Your task to perform on an android device: Open sound settings Image 0: 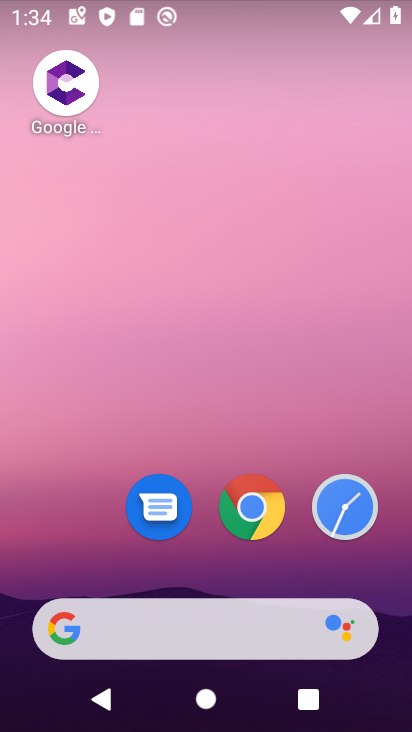
Step 0: drag from (285, 455) to (250, 133)
Your task to perform on an android device: Open sound settings Image 1: 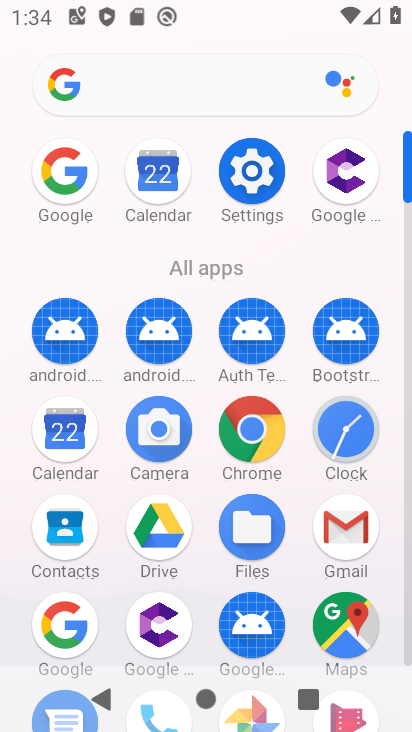
Step 1: click (240, 187)
Your task to perform on an android device: Open sound settings Image 2: 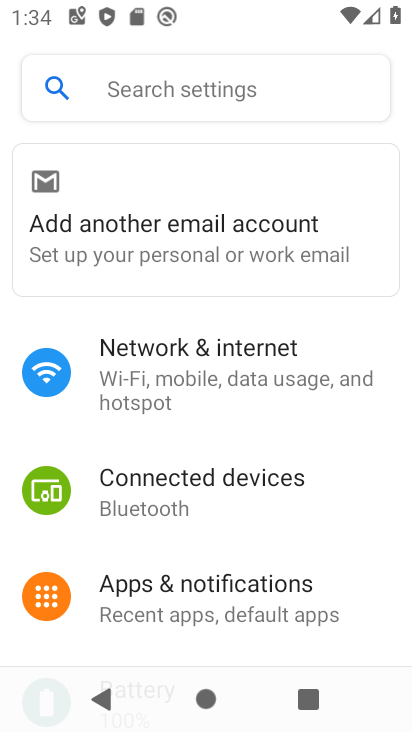
Step 2: drag from (218, 579) to (297, 199)
Your task to perform on an android device: Open sound settings Image 3: 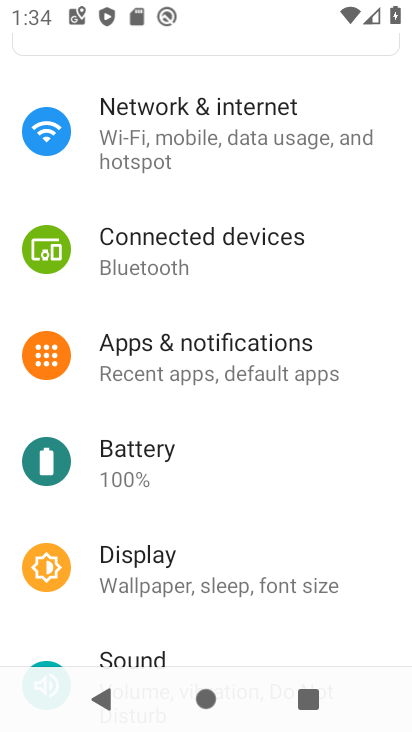
Step 3: drag from (210, 603) to (270, 313)
Your task to perform on an android device: Open sound settings Image 4: 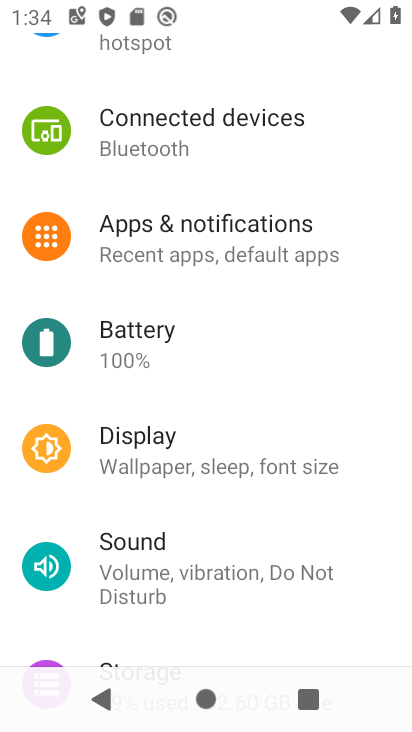
Step 4: click (142, 578)
Your task to perform on an android device: Open sound settings Image 5: 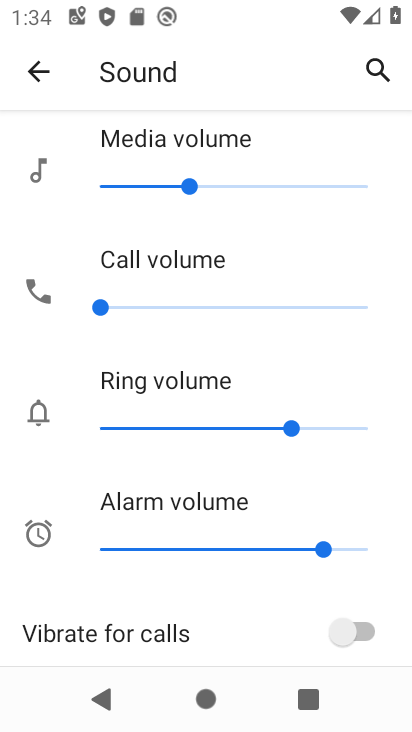
Step 5: task complete